Your task to perform on an android device: Open the Play Movies app and select the watchlist tab. Image 0: 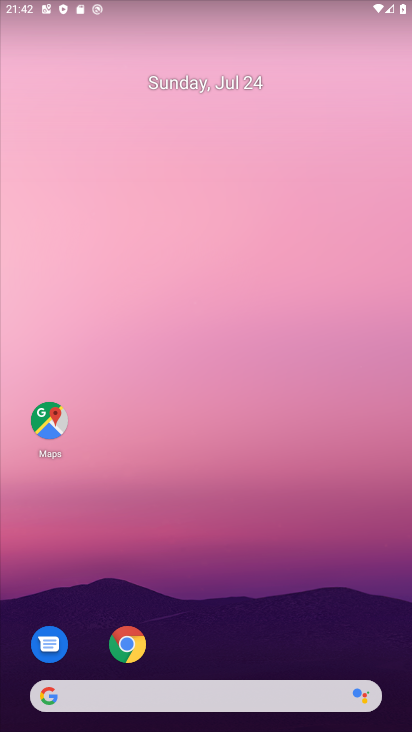
Step 0: drag from (394, 658) to (269, 129)
Your task to perform on an android device: Open the Play Movies app and select the watchlist tab. Image 1: 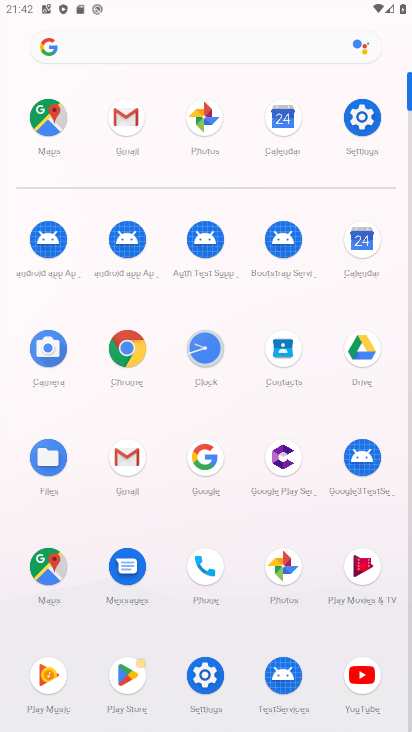
Step 1: click (364, 565)
Your task to perform on an android device: Open the Play Movies app and select the watchlist tab. Image 2: 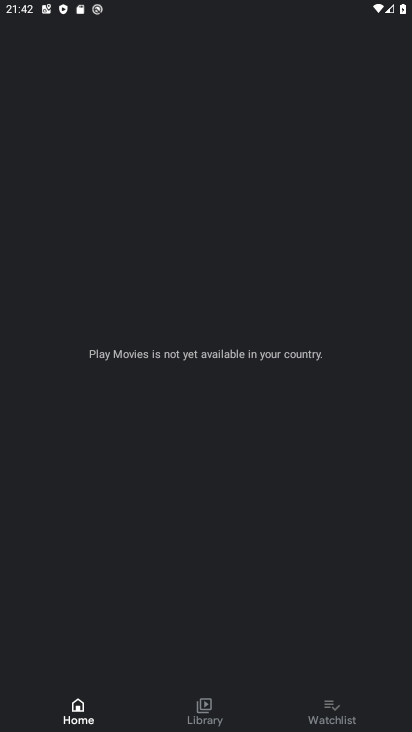
Step 2: click (330, 712)
Your task to perform on an android device: Open the Play Movies app and select the watchlist tab. Image 3: 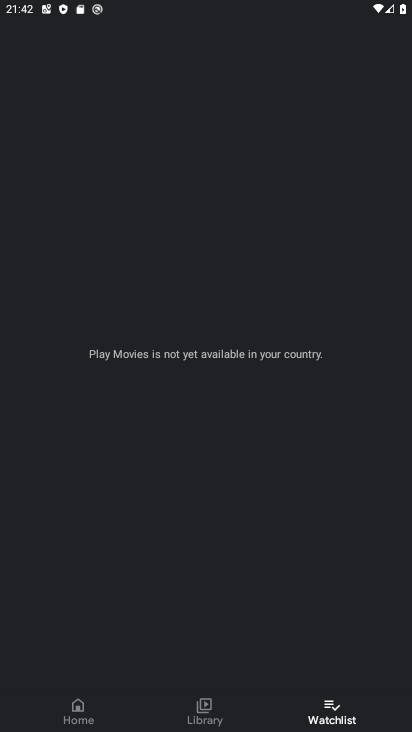
Step 3: task complete